Your task to perform on an android device: Go to Google maps Image 0: 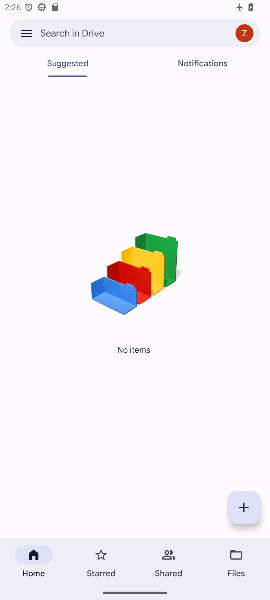
Step 0: press home button
Your task to perform on an android device: Go to Google maps Image 1: 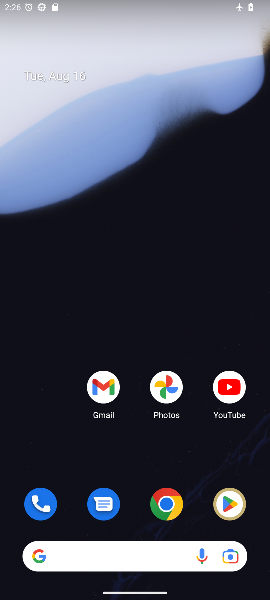
Step 1: drag from (128, 474) to (121, 82)
Your task to perform on an android device: Go to Google maps Image 2: 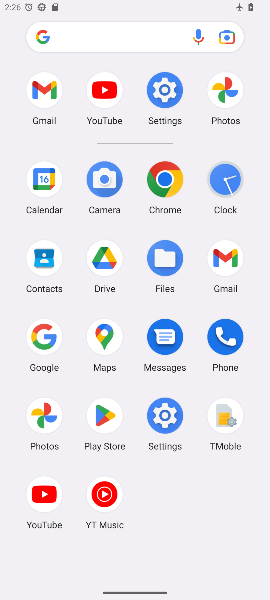
Step 2: click (104, 335)
Your task to perform on an android device: Go to Google maps Image 3: 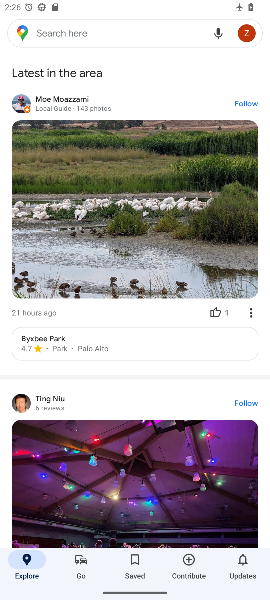
Step 3: click (19, 32)
Your task to perform on an android device: Go to Google maps Image 4: 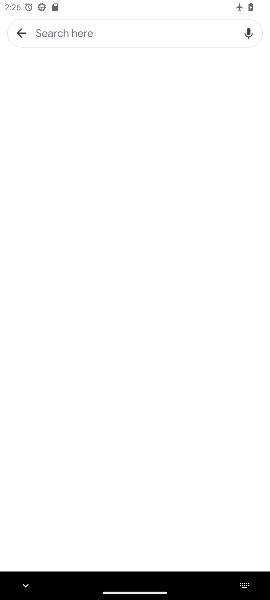
Step 4: click (29, 30)
Your task to perform on an android device: Go to Google maps Image 5: 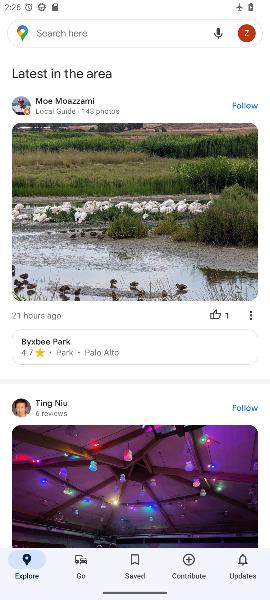
Step 5: task complete